Your task to perform on an android device: Go to settings Image 0: 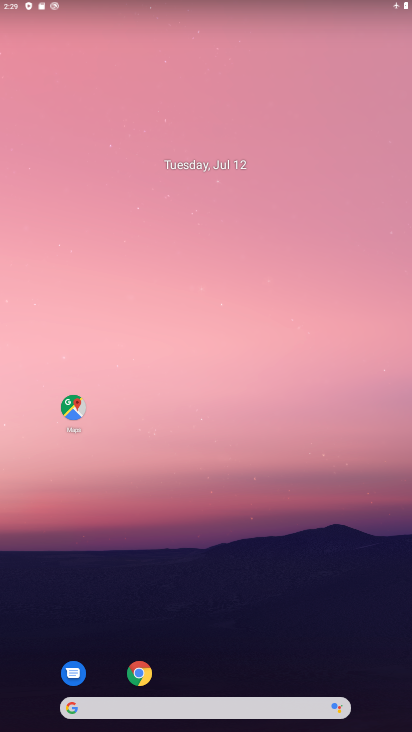
Step 0: drag from (295, 503) to (266, 179)
Your task to perform on an android device: Go to settings Image 1: 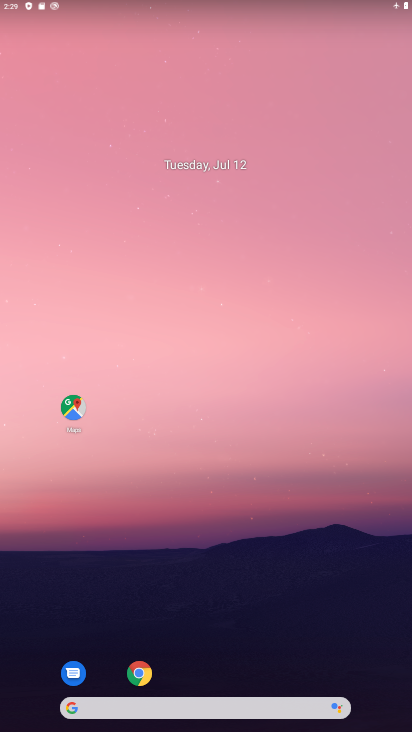
Step 1: drag from (250, 551) to (268, 8)
Your task to perform on an android device: Go to settings Image 2: 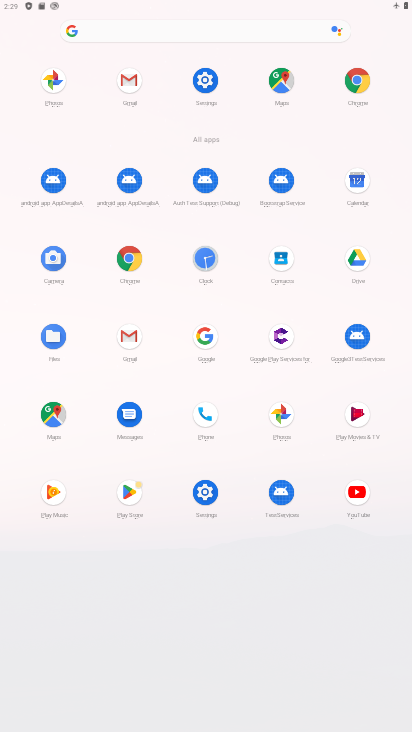
Step 2: click (204, 81)
Your task to perform on an android device: Go to settings Image 3: 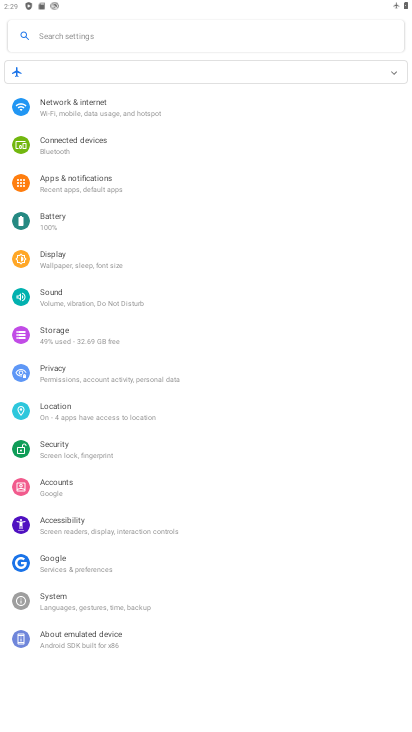
Step 3: task complete